Your task to perform on an android device: find which apps use the phone's location Image 0: 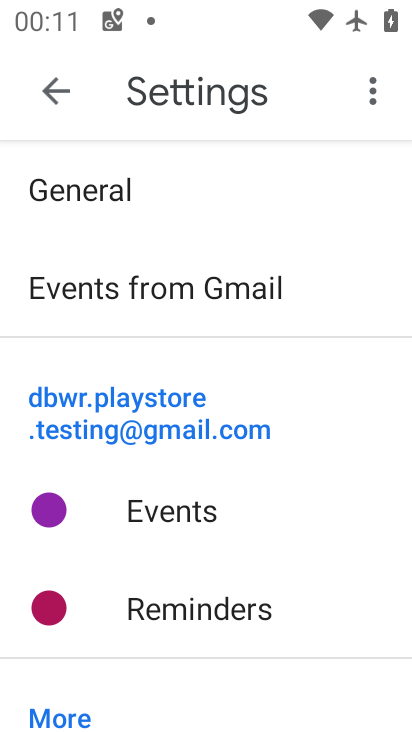
Step 0: press home button
Your task to perform on an android device: find which apps use the phone's location Image 1: 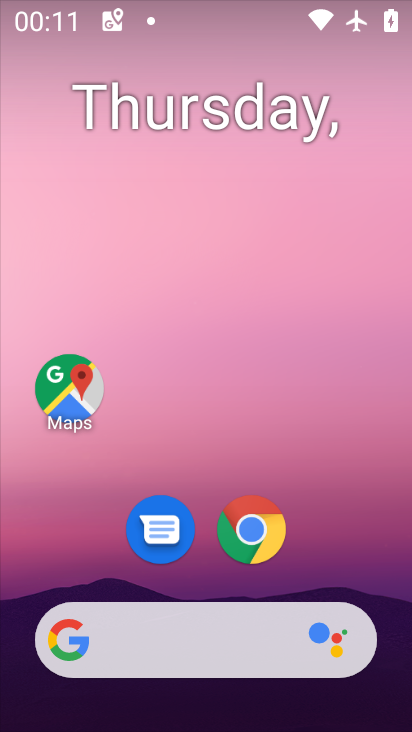
Step 1: drag from (387, 629) to (321, 124)
Your task to perform on an android device: find which apps use the phone's location Image 2: 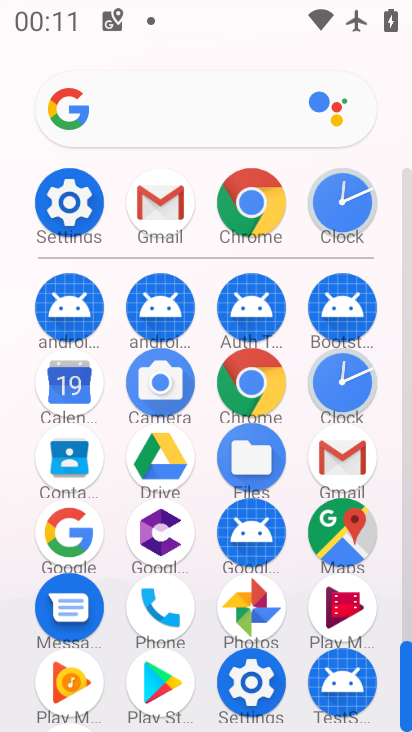
Step 2: click (254, 682)
Your task to perform on an android device: find which apps use the phone's location Image 3: 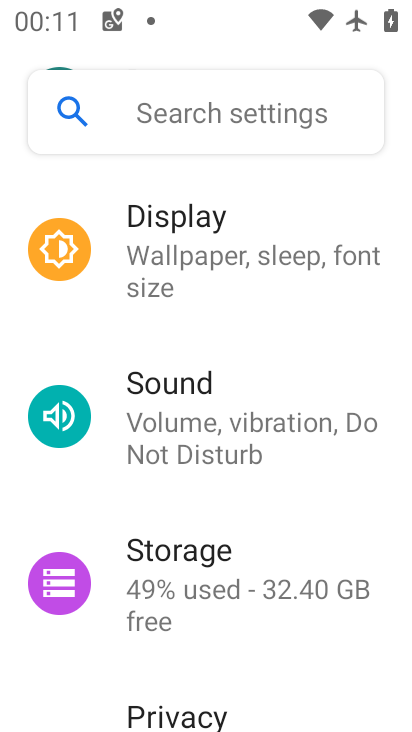
Step 3: drag from (350, 639) to (323, 280)
Your task to perform on an android device: find which apps use the phone's location Image 4: 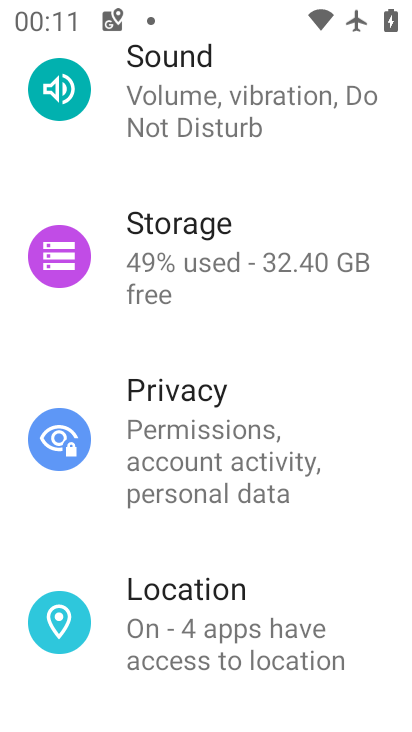
Step 4: click (198, 608)
Your task to perform on an android device: find which apps use the phone's location Image 5: 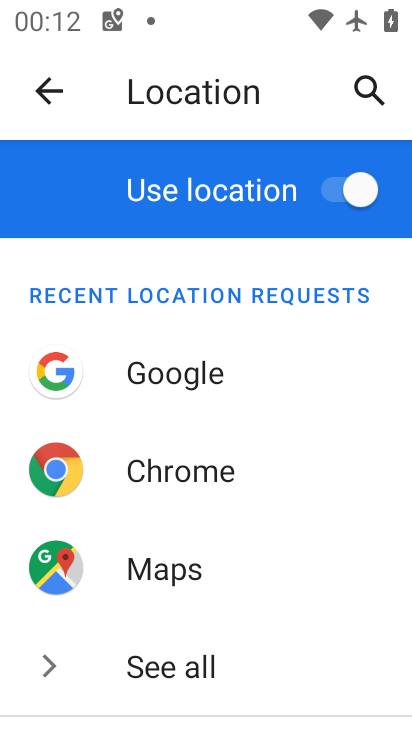
Step 5: drag from (267, 692) to (285, 236)
Your task to perform on an android device: find which apps use the phone's location Image 6: 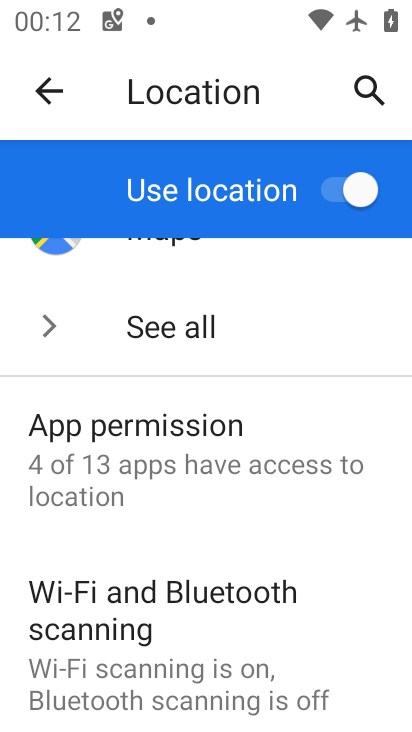
Step 6: drag from (318, 620) to (305, 469)
Your task to perform on an android device: find which apps use the phone's location Image 7: 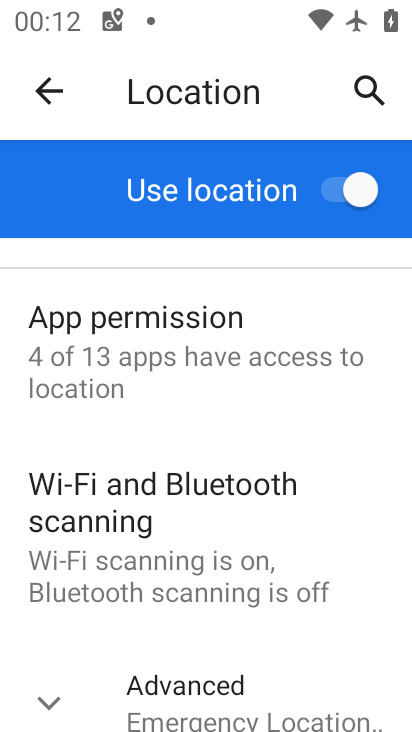
Step 7: click (116, 326)
Your task to perform on an android device: find which apps use the phone's location Image 8: 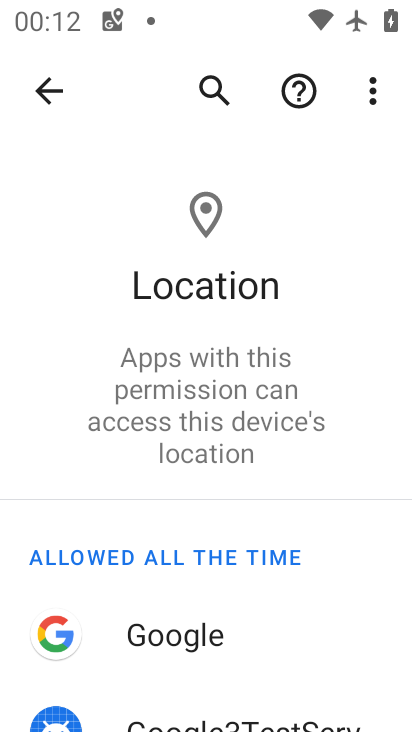
Step 8: drag from (314, 686) to (301, 222)
Your task to perform on an android device: find which apps use the phone's location Image 9: 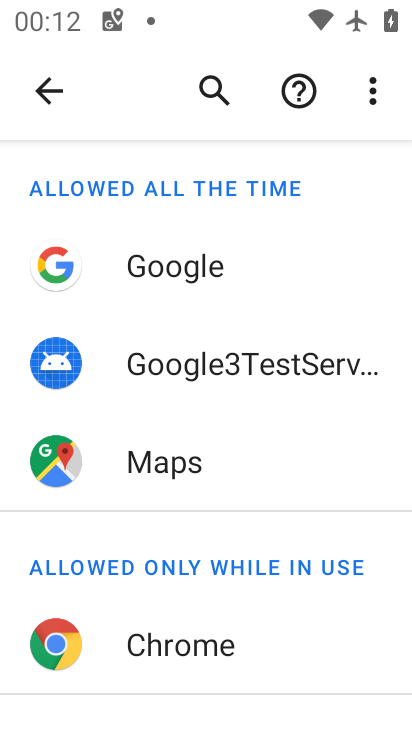
Step 9: drag from (352, 640) to (305, 215)
Your task to perform on an android device: find which apps use the phone's location Image 10: 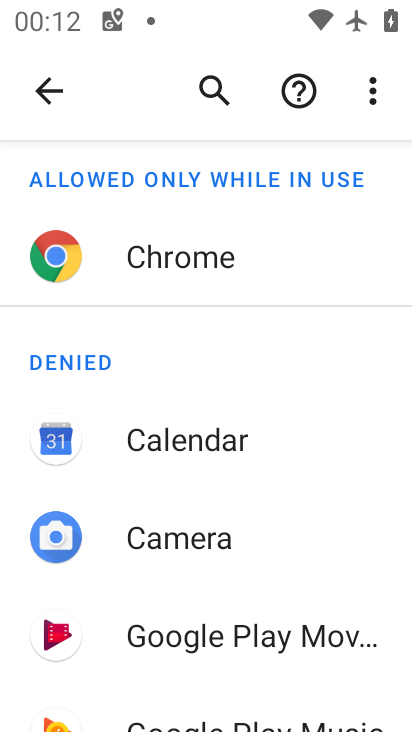
Step 10: drag from (351, 631) to (331, 222)
Your task to perform on an android device: find which apps use the phone's location Image 11: 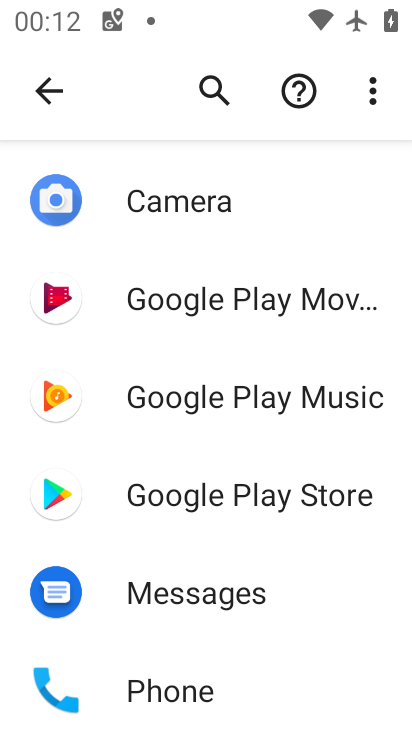
Step 11: drag from (314, 608) to (301, 219)
Your task to perform on an android device: find which apps use the phone's location Image 12: 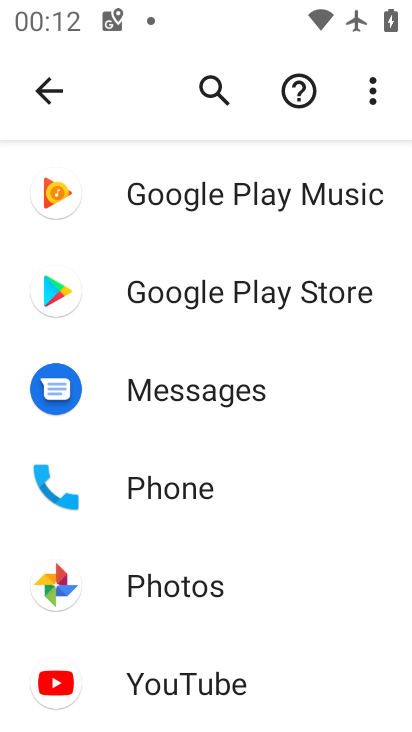
Step 12: click (160, 582)
Your task to perform on an android device: find which apps use the phone's location Image 13: 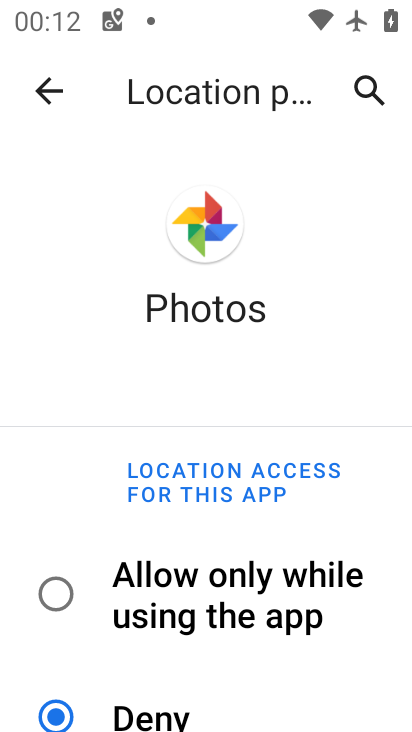
Step 13: task complete